Your task to perform on an android device: turn off data saver in the chrome app Image 0: 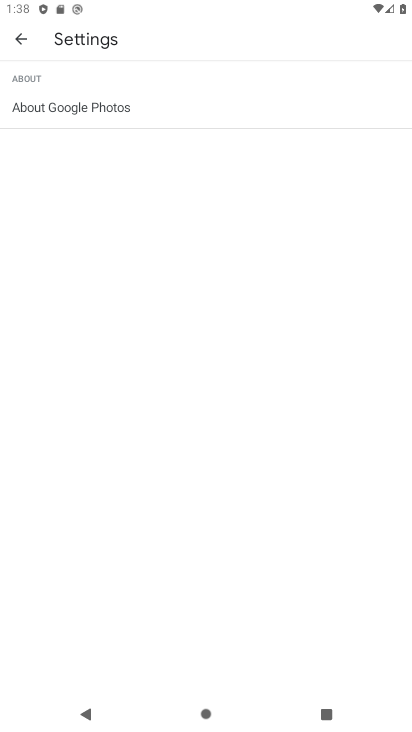
Step 0: press home button
Your task to perform on an android device: turn off data saver in the chrome app Image 1: 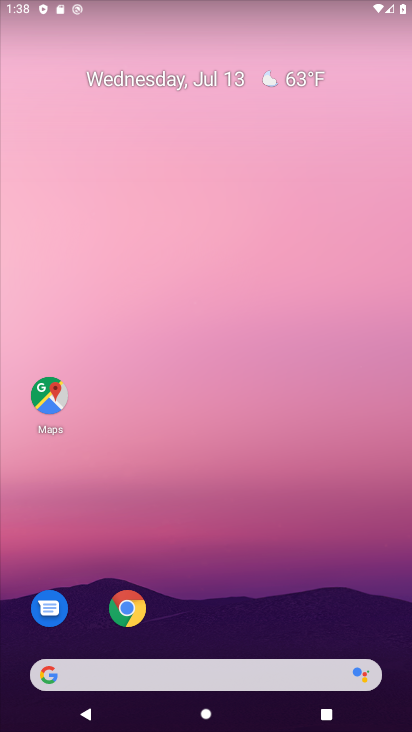
Step 1: click (135, 621)
Your task to perform on an android device: turn off data saver in the chrome app Image 2: 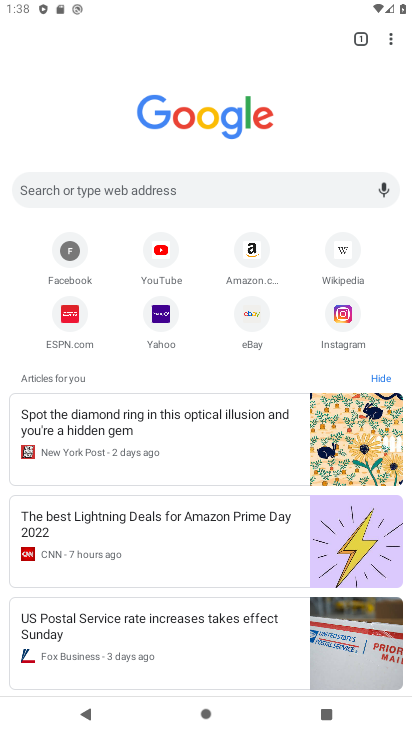
Step 2: click (398, 48)
Your task to perform on an android device: turn off data saver in the chrome app Image 3: 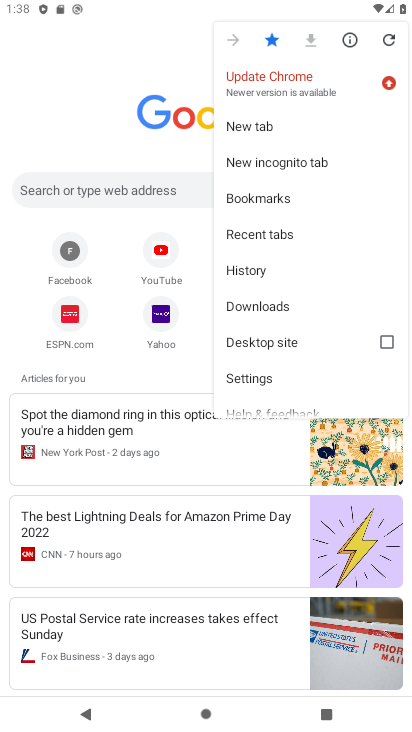
Step 3: click (258, 378)
Your task to perform on an android device: turn off data saver in the chrome app Image 4: 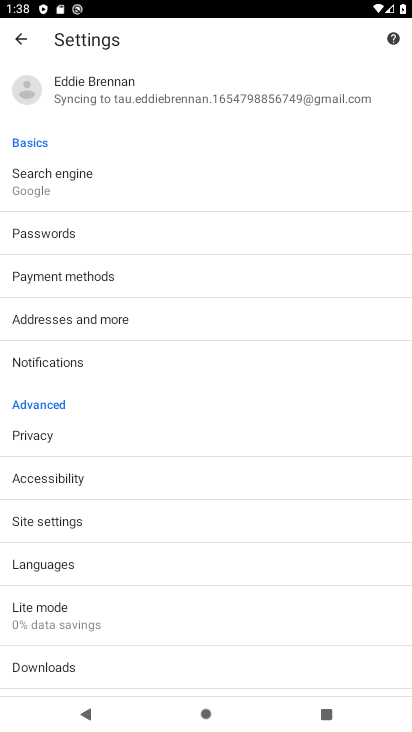
Step 4: click (137, 618)
Your task to perform on an android device: turn off data saver in the chrome app Image 5: 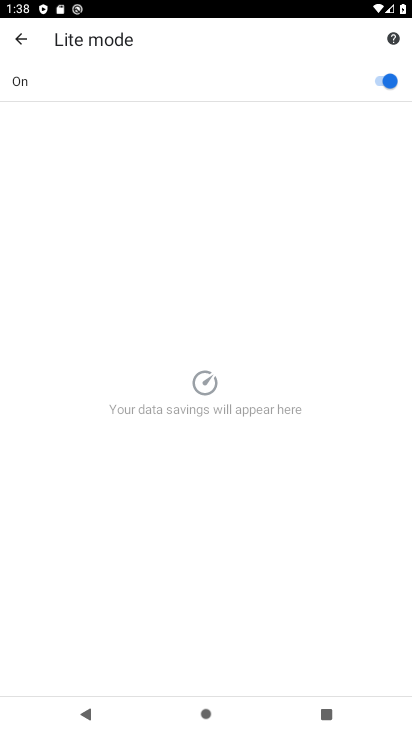
Step 5: click (375, 74)
Your task to perform on an android device: turn off data saver in the chrome app Image 6: 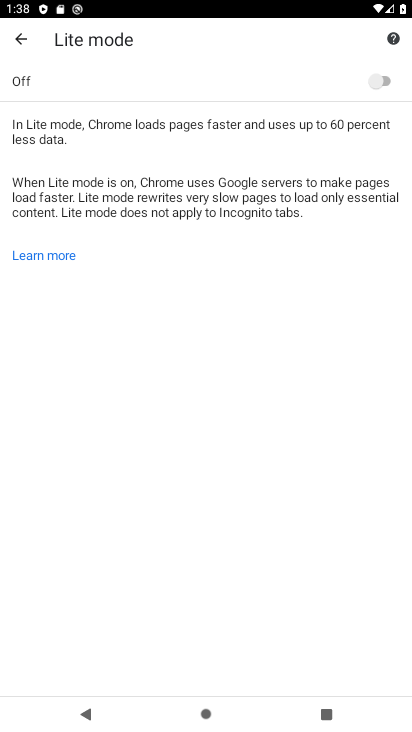
Step 6: task complete